Your task to perform on an android device: Go to display settings Image 0: 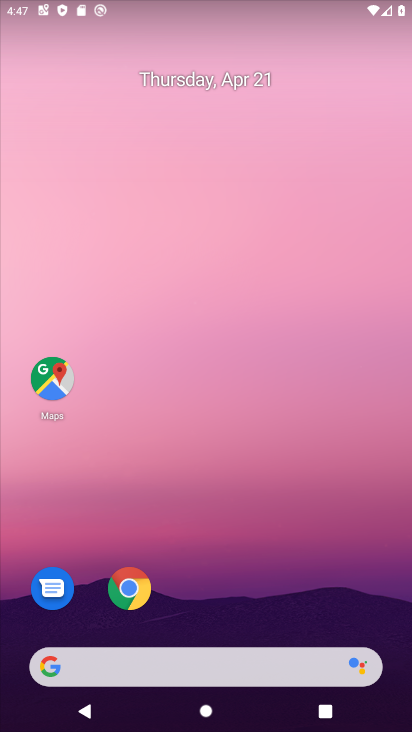
Step 0: click (45, 379)
Your task to perform on an android device: Go to display settings Image 1: 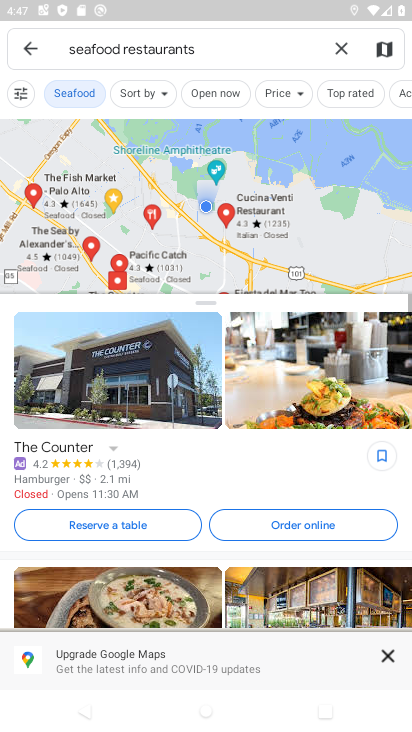
Step 1: press back button
Your task to perform on an android device: Go to display settings Image 2: 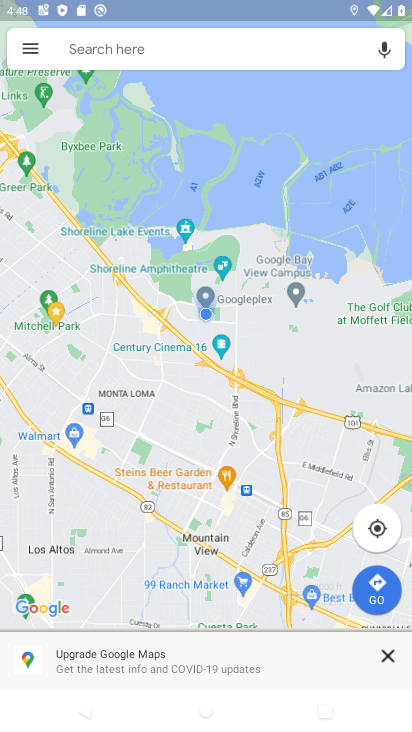
Step 2: press back button
Your task to perform on an android device: Go to display settings Image 3: 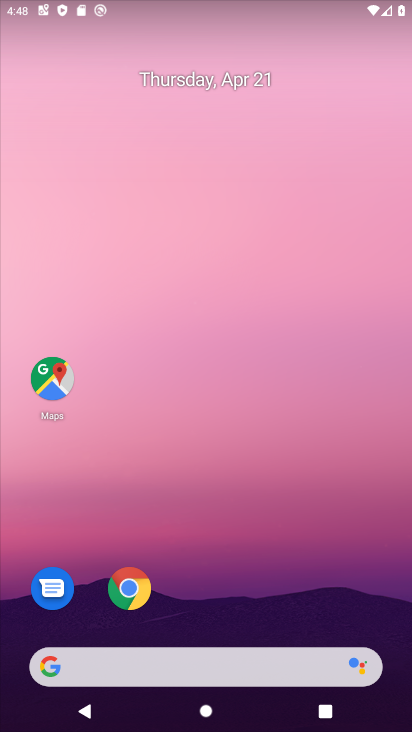
Step 3: drag from (204, 495) to (310, 54)
Your task to perform on an android device: Go to display settings Image 4: 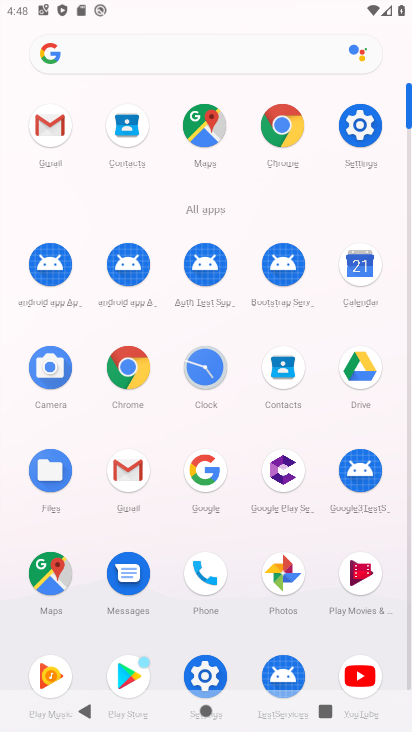
Step 4: click (361, 118)
Your task to perform on an android device: Go to display settings Image 5: 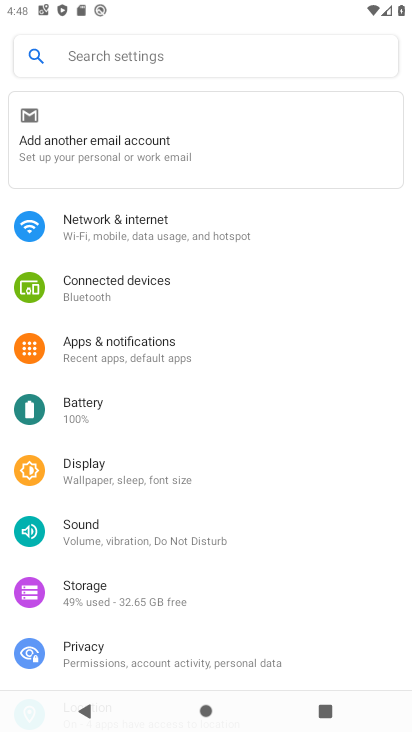
Step 5: click (88, 467)
Your task to perform on an android device: Go to display settings Image 6: 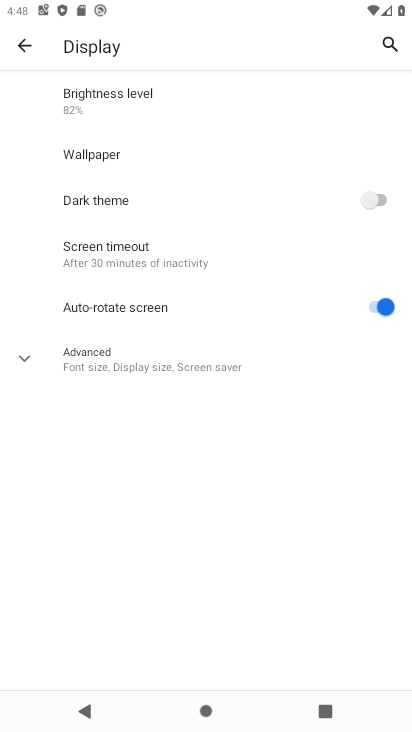
Step 6: task complete